Your task to perform on an android device: Search for Mexican restaurants on Maps Image 0: 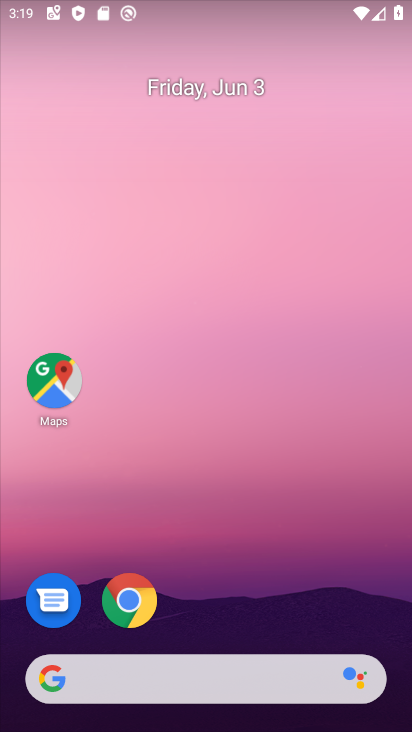
Step 0: click (63, 379)
Your task to perform on an android device: Search for Mexican restaurants on Maps Image 1: 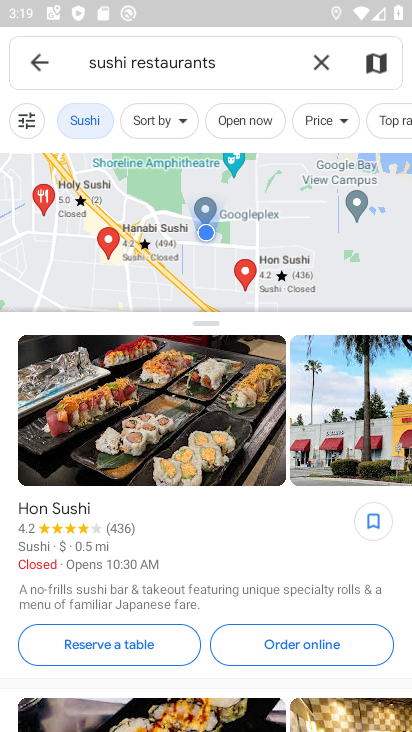
Step 1: click (97, 51)
Your task to perform on an android device: Search for Mexican restaurants on Maps Image 2: 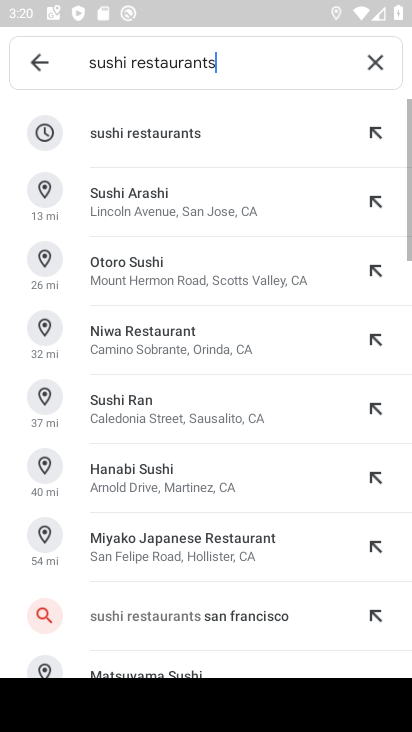
Step 2: click (109, 64)
Your task to perform on an android device: Search for Mexican restaurants on Maps Image 3: 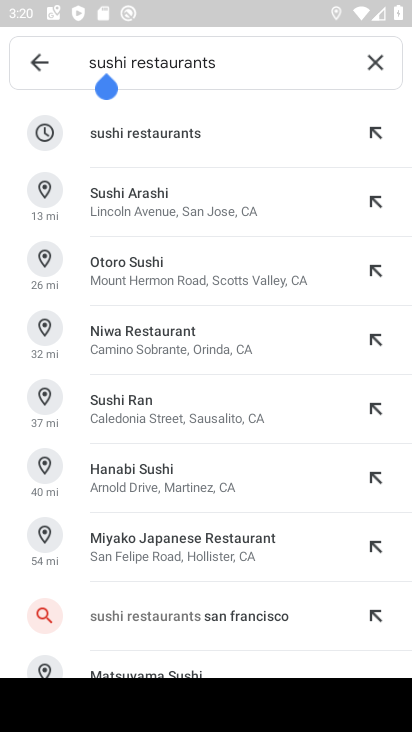
Step 3: click (107, 65)
Your task to perform on an android device: Search for Mexican restaurants on Maps Image 4: 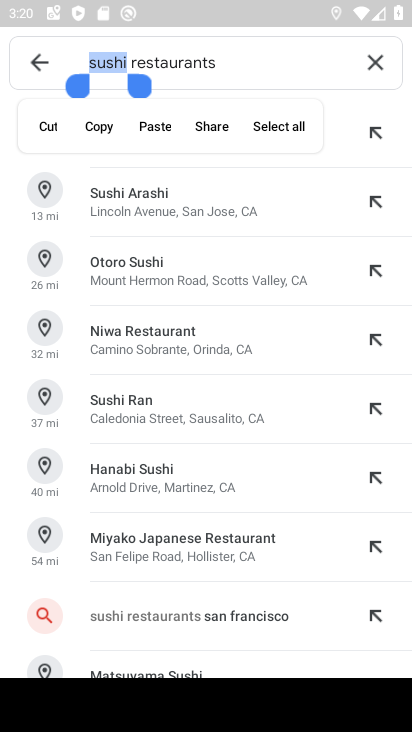
Step 4: type "mexican"
Your task to perform on an android device: Search for Mexican restaurants on Maps Image 5: 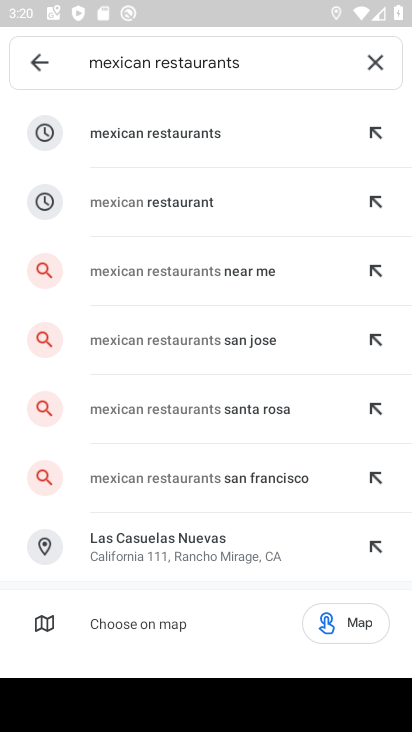
Step 5: click (165, 120)
Your task to perform on an android device: Search for Mexican restaurants on Maps Image 6: 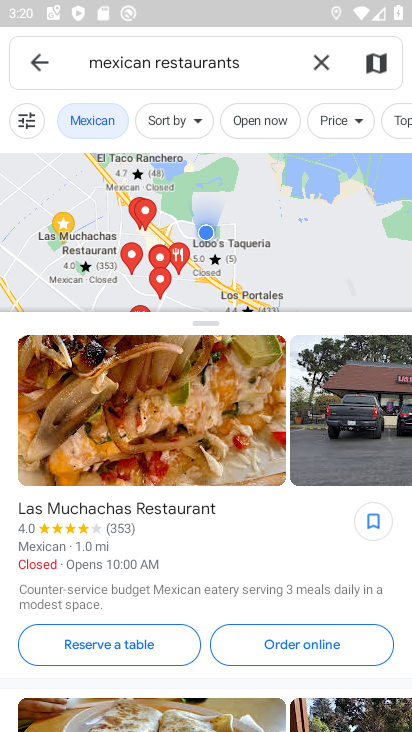
Step 6: task complete